Your task to perform on an android device: Open the calendar and show me this week's events? Image 0: 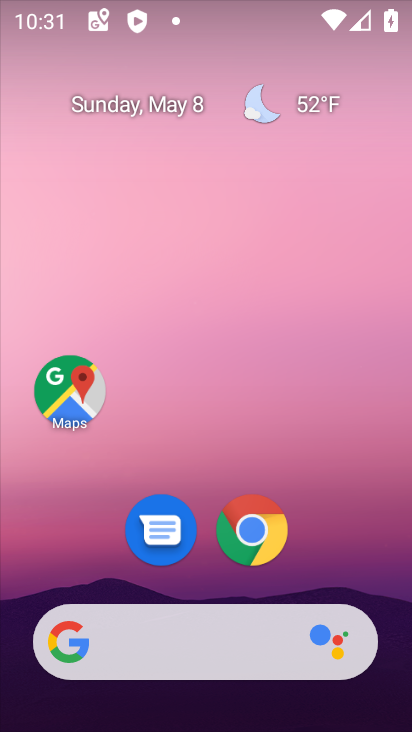
Step 0: drag from (370, 537) to (376, 106)
Your task to perform on an android device: Open the calendar and show me this week's events? Image 1: 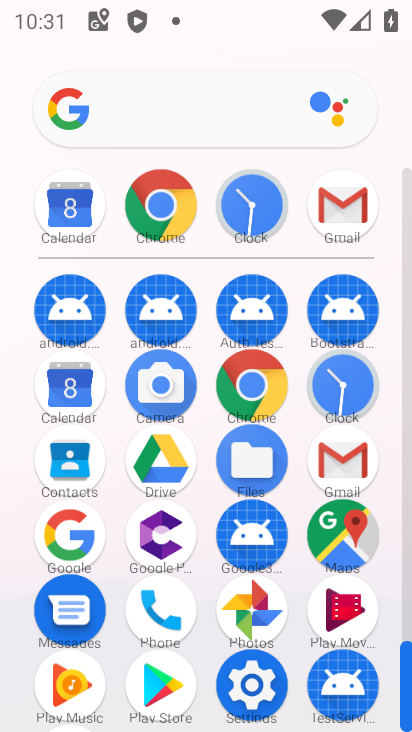
Step 1: click (67, 393)
Your task to perform on an android device: Open the calendar and show me this week's events? Image 2: 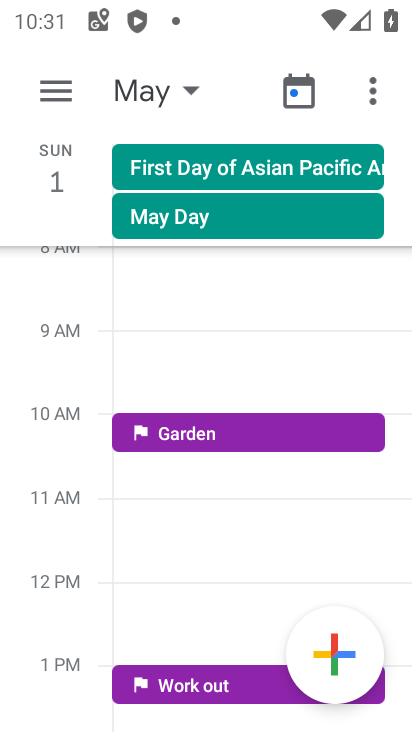
Step 2: click (151, 82)
Your task to perform on an android device: Open the calendar and show me this week's events? Image 3: 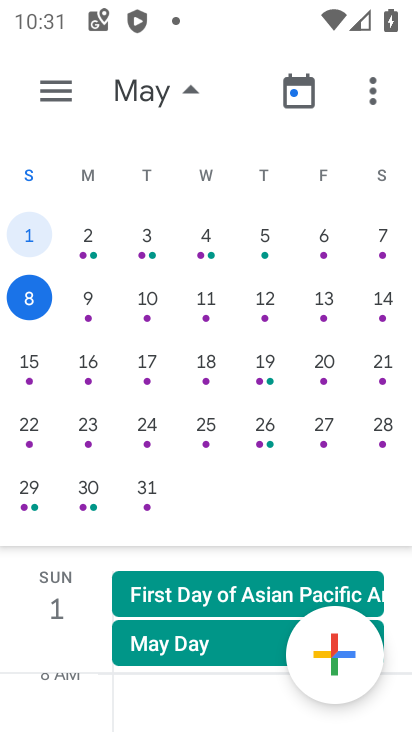
Step 3: click (81, 303)
Your task to perform on an android device: Open the calendar and show me this week's events? Image 4: 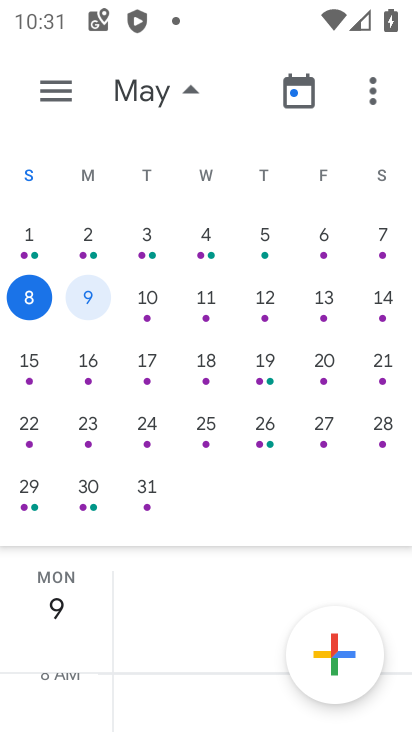
Step 4: drag from (92, 629) to (140, 420)
Your task to perform on an android device: Open the calendar and show me this week's events? Image 5: 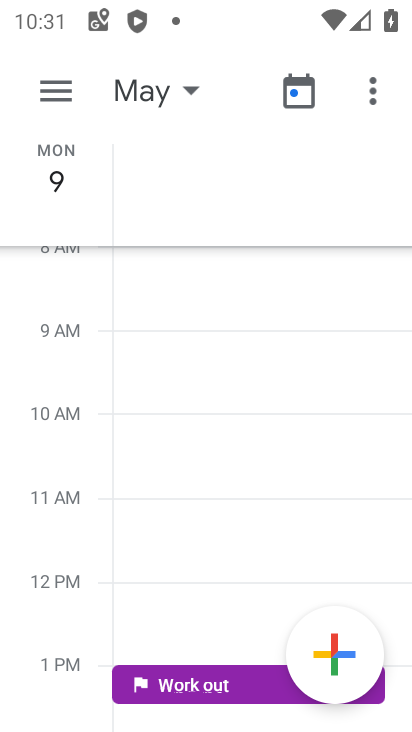
Step 5: drag from (69, 705) to (111, 427)
Your task to perform on an android device: Open the calendar and show me this week's events? Image 6: 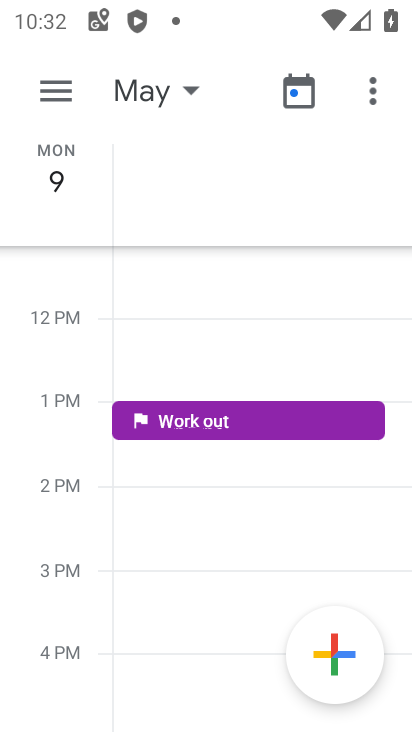
Step 6: drag from (66, 639) to (71, 361)
Your task to perform on an android device: Open the calendar and show me this week's events? Image 7: 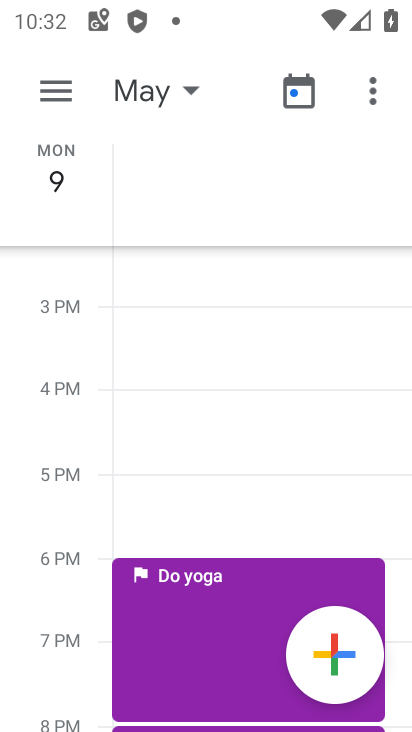
Step 7: drag from (28, 625) to (81, 325)
Your task to perform on an android device: Open the calendar and show me this week's events? Image 8: 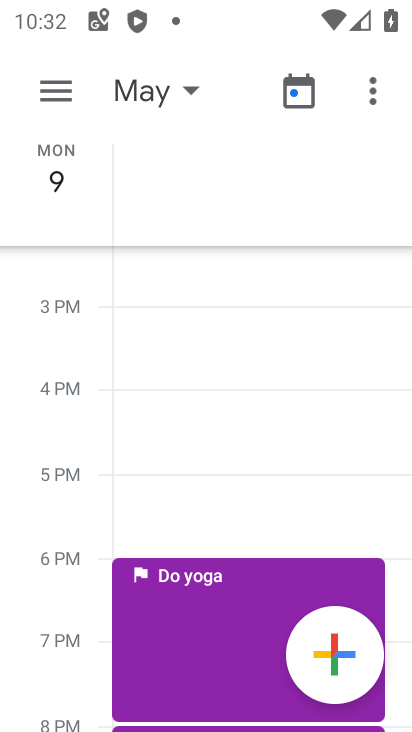
Step 8: drag from (51, 679) to (72, 331)
Your task to perform on an android device: Open the calendar and show me this week's events? Image 9: 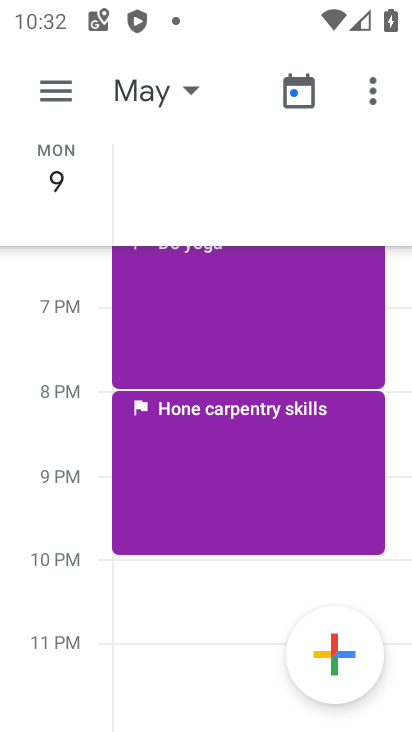
Step 9: click (67, 81)
Your task to perform on an android device: Open the calendar and show me this week's events? Image 10: 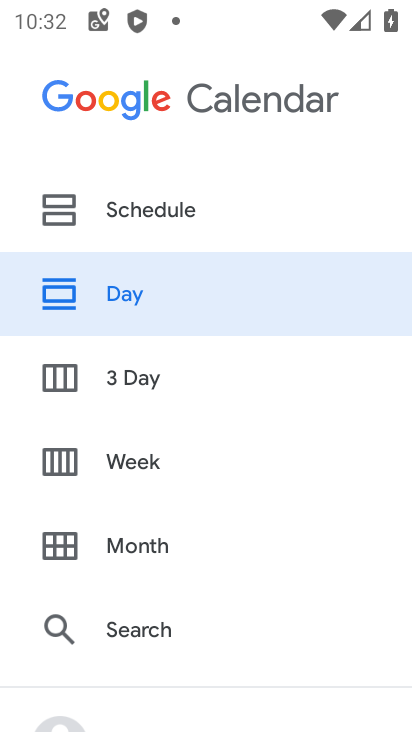
Step 10: click (142, 199)
Your task to perform on an android device: Open the calendar and show me this week's events? Image 11: 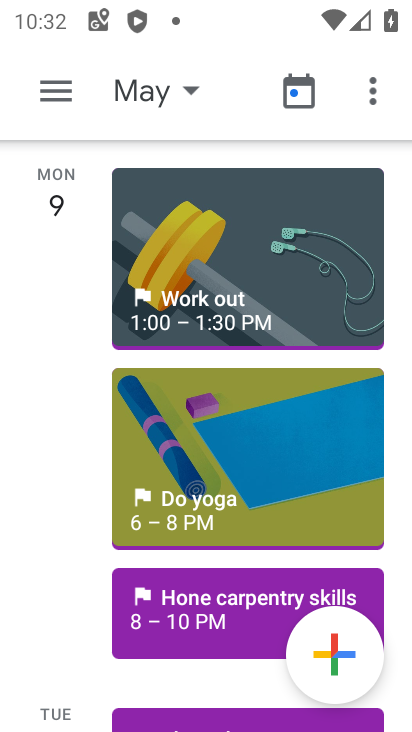
Step 11: task complete